Your task to perform on an android device: toggle notification dots Image 0: 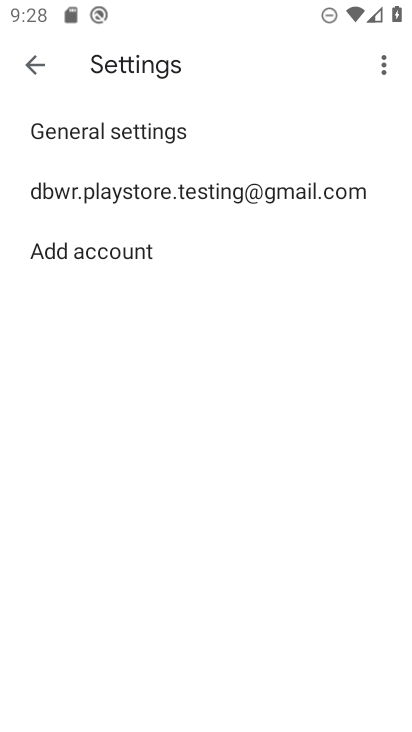
Step 0: press home button
Your task to perform on an android device: toggle notification dots Image 1: 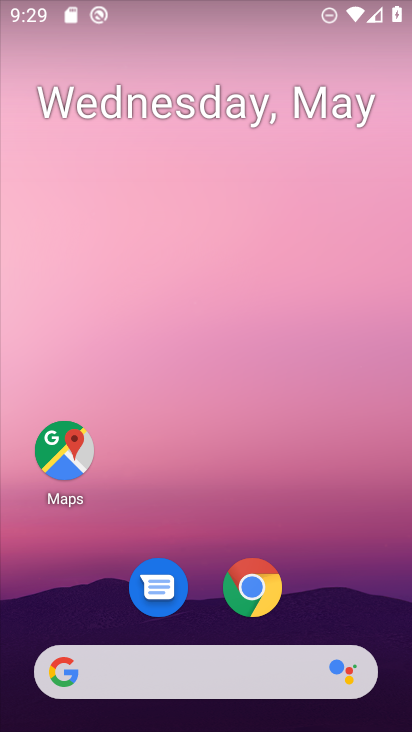
Step 1: drag from (203, 720) to (201, 168)
Your task to perform on an android device: toggle notification dots Image 2: 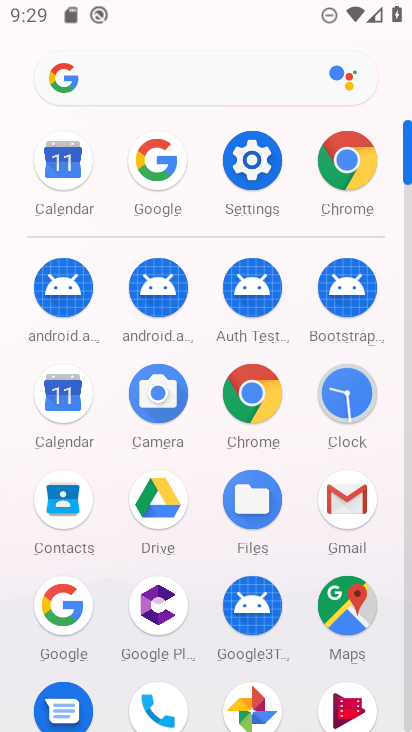
Step 2: click (257, 160)
Your task to perform on an android device: toggle notification dots Image 3: 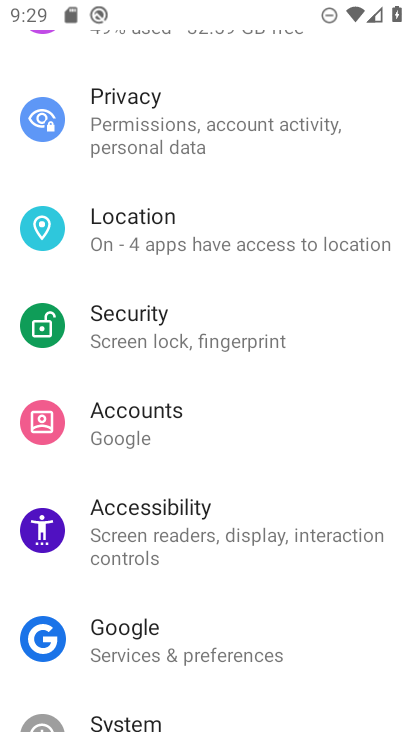
Step 3: drag from (255, 157) to (237, 552)
Your task to perform on an android device: toggle notification dots Image 4: 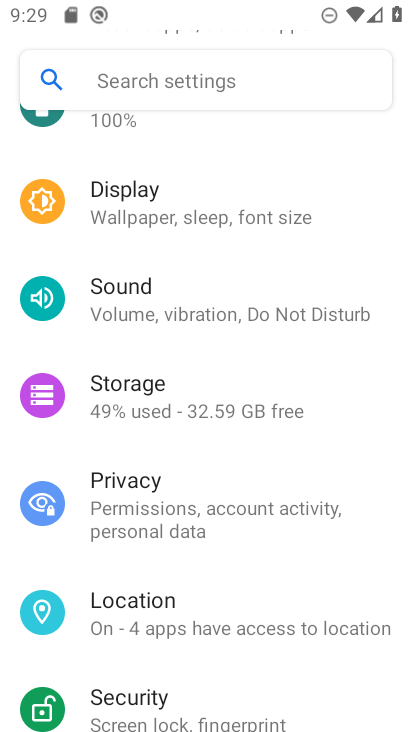
Step 4: drag from (272, 210) to (270, 566)
Your task to perform on an android device: toggle notification dots Image 5: 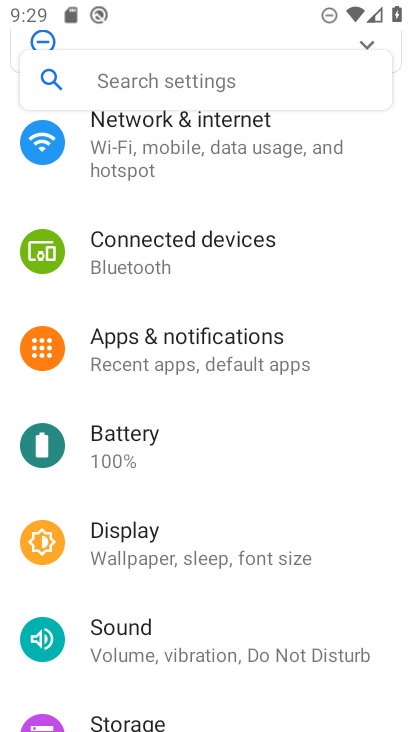
Step 5: click (213, 352)
Your task to perform on an android device: toggle notification dots Image 6: 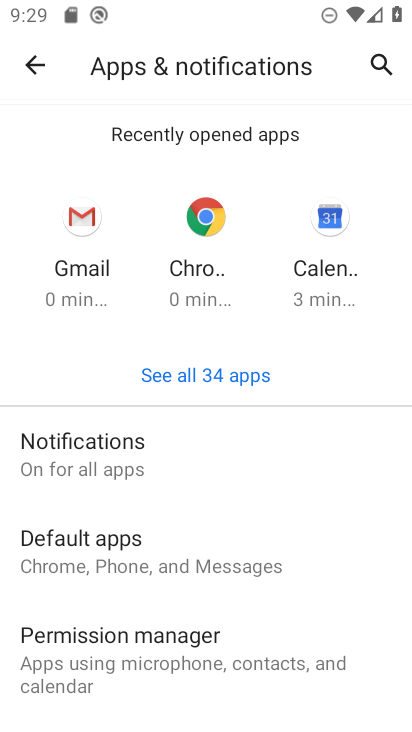
Step 6: click (89, 456)
Your task to perform on an android device: toggle notification dots Image 7: 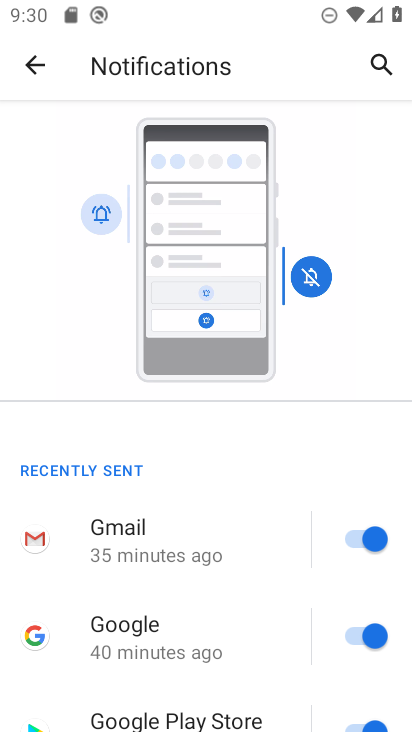
Step 7: drag from (196, 691) to (217, 226)
Your task to perform on an android device: toggle notification dots Image 8: 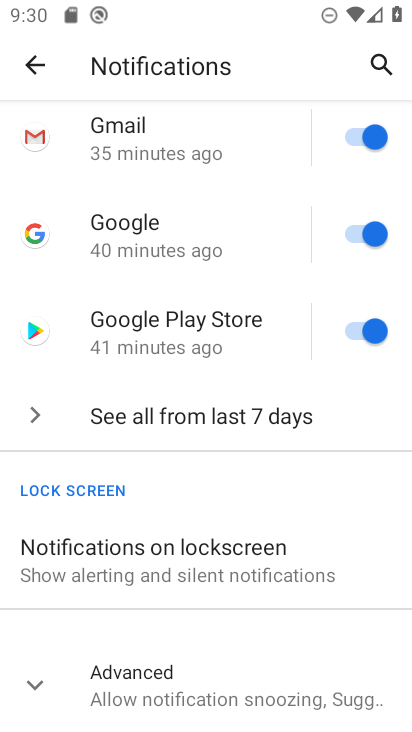
Step 8: click (139, 685)
Your task to perform on an android device: toggle notification dots Image 9: 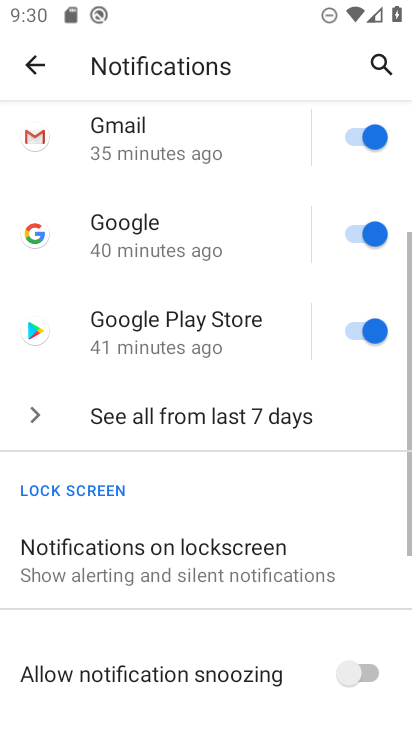
Step 9: drag from (243, 690) to (231, 341)
Your task to perform on an android device: toggle notification dots Image 10: 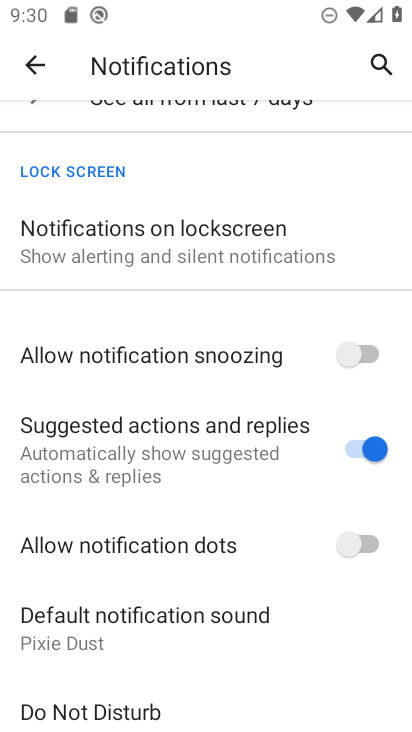
Step 10: click (364, 543)
Your task to perform on an android device: toggle notification dots Image 11: 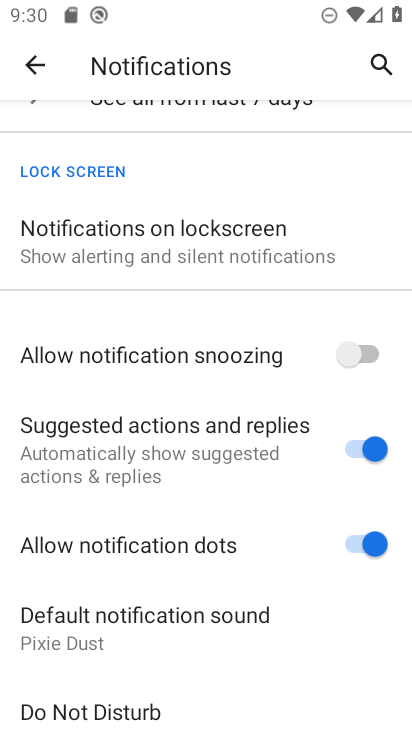
Step 11: task complete